Your task to perform on an android device: move an email to a new category in the gmail app Image 0: 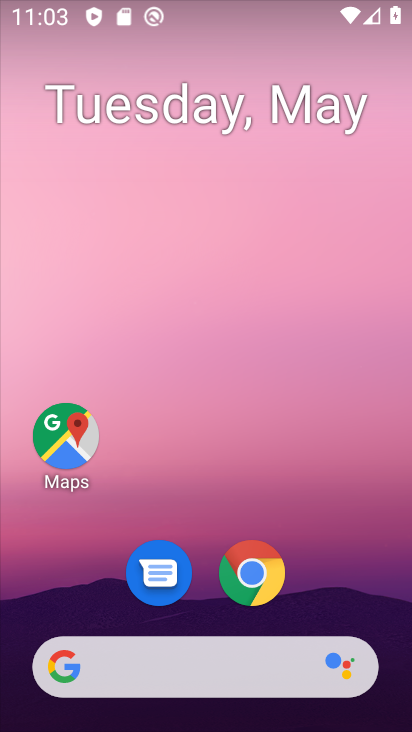
Step 0: drag from (290, 517) to (309, 79)
Your task to perform on an android device: move an email to a new category in the gmail app Image 1: 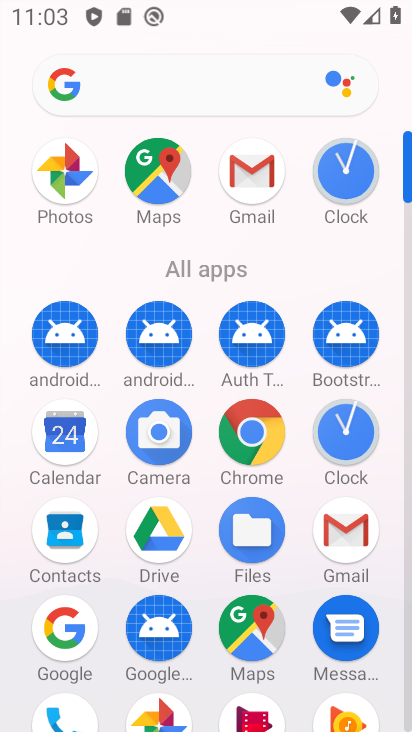
Step 1: drag from (298, 578) to (317, 193)
Your task to perform on an android device: move an email to a new category in the gmail app Image 2: 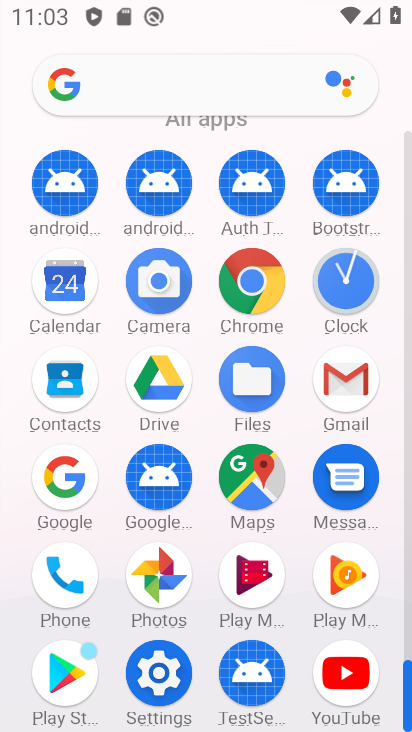
Step 2: click (299, 117)
Your task to perform on an android device: move an email to a new category in the gmail app Image 3: 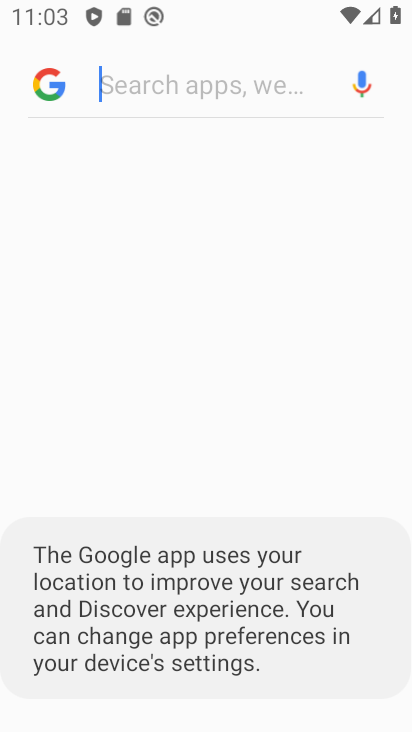
Step 3: click (364, 365)
Your task to perform on an android device: move an email to a new category in the gmail app Image 4: 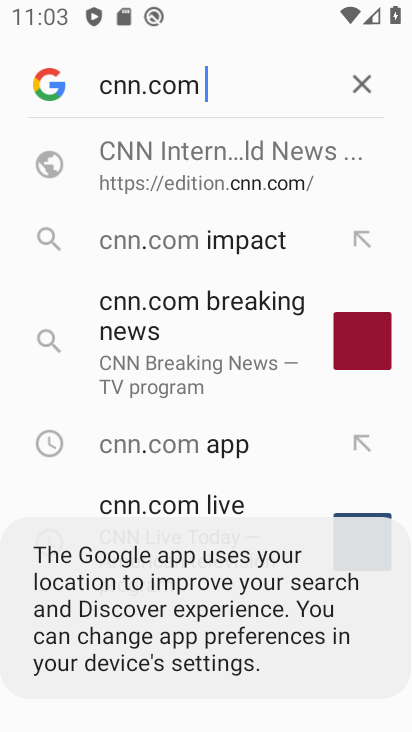
Step 4: press home button
Your task to perform on an android device: move an email to a new category in the gmail app Image 5: 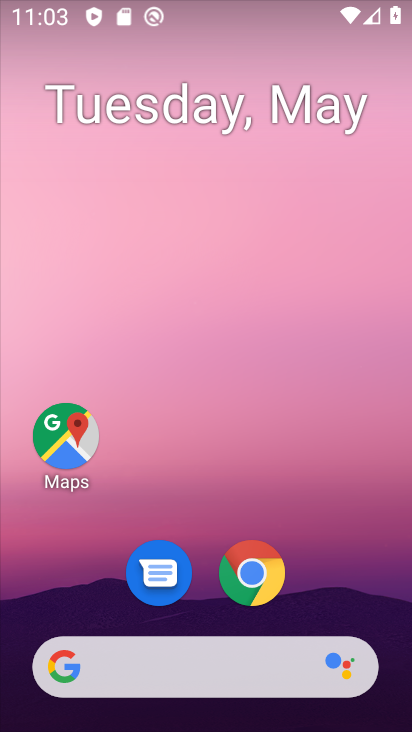
Step 5: drag from (317, 490) to (316, 208)
Your task to perform on an android device: move an email to a new category in the gmail app Image 6: 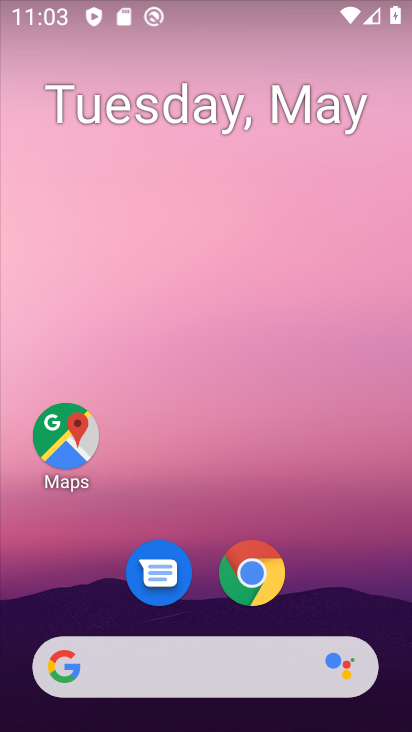
Step 6: drag from (319, 455) to (304, 277)
Your task to perform on an android device: move an email to a new category in the gmail app Image 7: 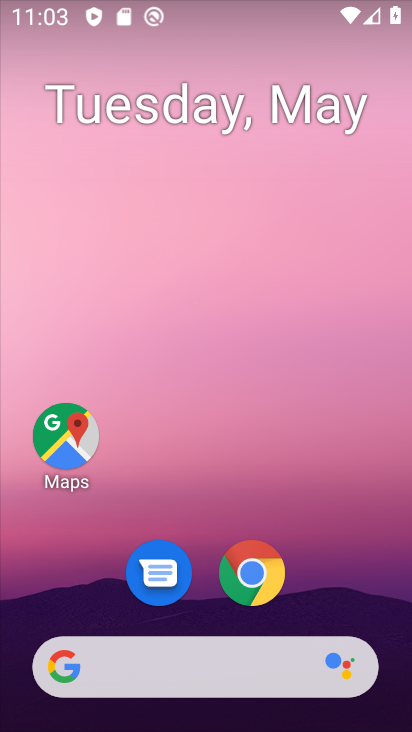
Step 7: drag from (293, 594) to (266, 167)
Your task to perform on an android device: move an email to a new category in the gmail app Image 8: 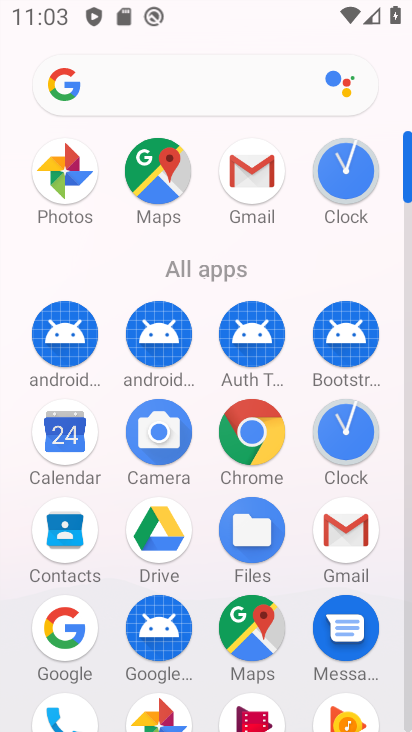
Step 8: click (351, 530)
Your task to perform on an android device: move an email to a new category in the gmail app Image 9: 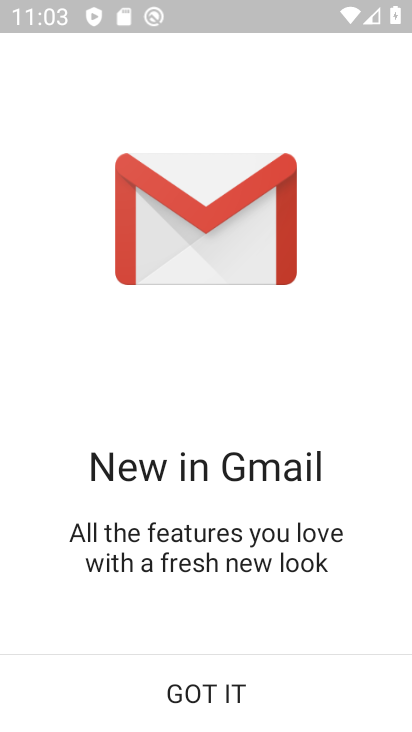
Step 9: click (202, 684)
Your task to perform on an android device: move an email to a new category in the gmail app Image 10: 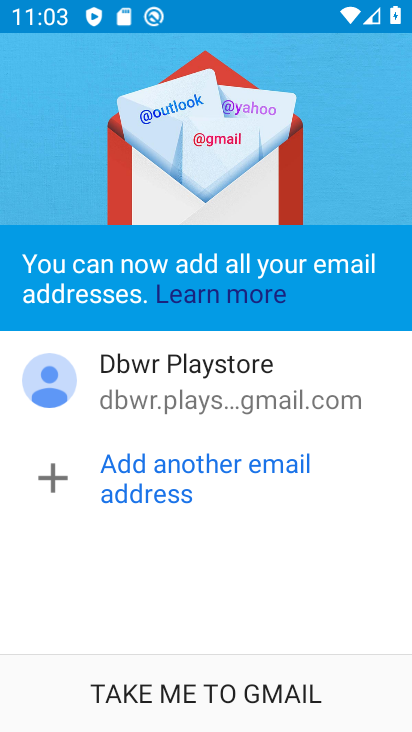
Step 10: click (202, 687)
Your task to perform on an android device: move an email to a new category in the gmail app Image 11: 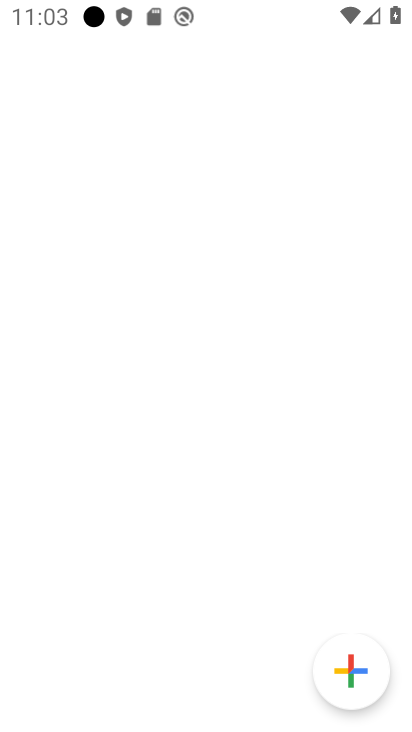
Step 11: click (202, 687)
Your task to perform on an android device: move an email to a new category in the gmail app Image 12: 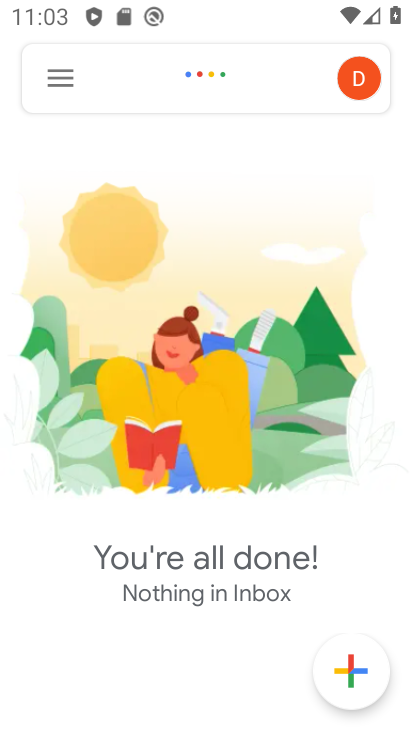
Step 12: click (50, 74)
Your task to perform on an android device: move an email to a new category in the gmail app Image 13: 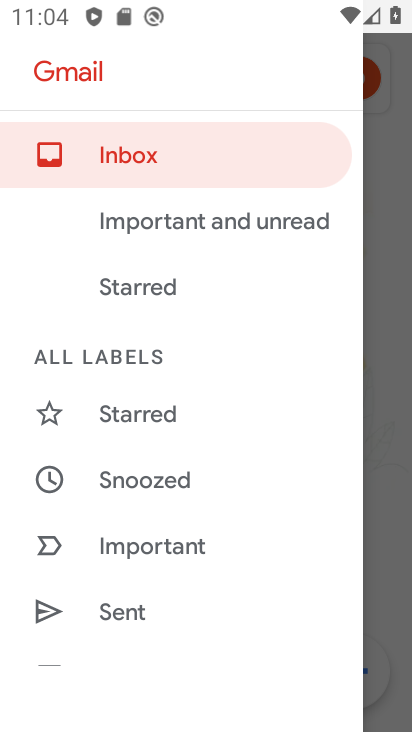
Step 13: drag from (228, 400) to (222, 98)
Your task to perform on an android device: move an email to a new category in the gmail app Image 14: 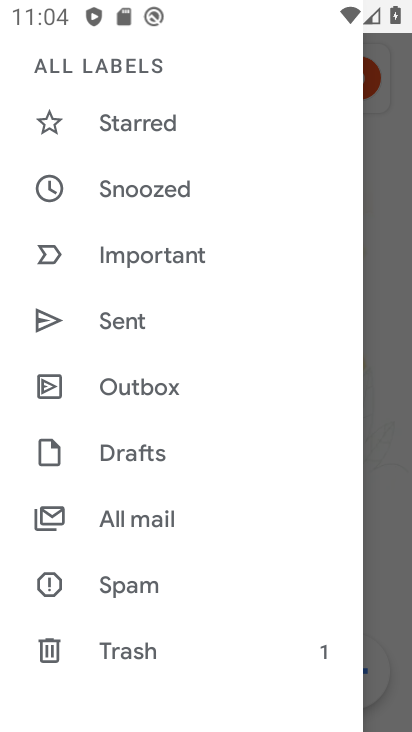
Step 14: drag from (187, 527) to (209, 287)
Your task to perform on an android device: move an email to a new category in the gmail app Image 15: 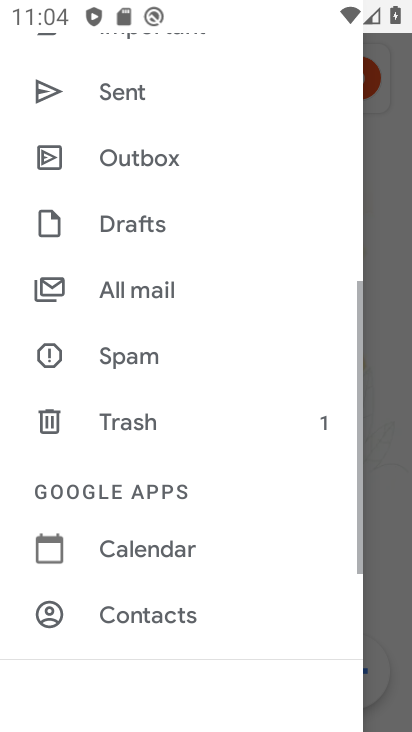
Step 15: click (220, 245)
Your task to perform on an android device: move an email to a new category in the gmail app Image 16: 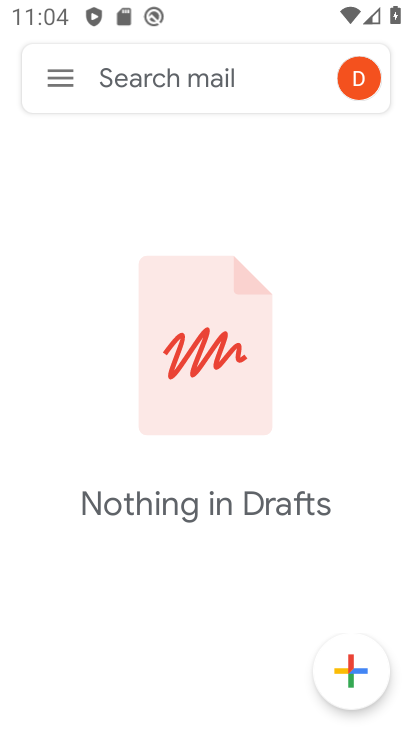
Step 16: click (57, 64)
Your task to perform on an android device: move an email to a new category in the gmail app Image 17: 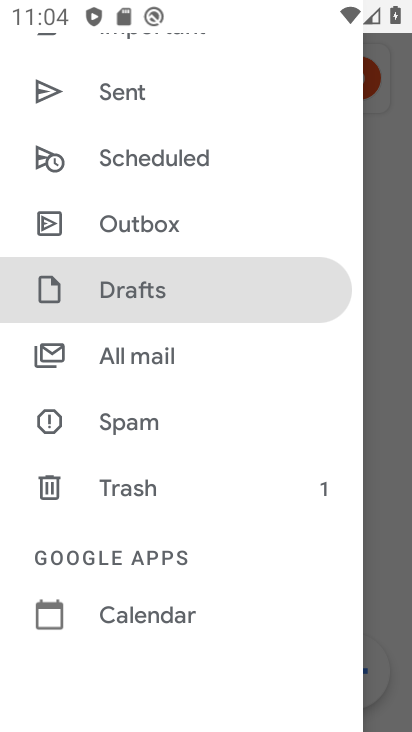
Step 17: click (184, 349)
Your task to perform on an android device: move an email to a new category in the gmail app Image 18: 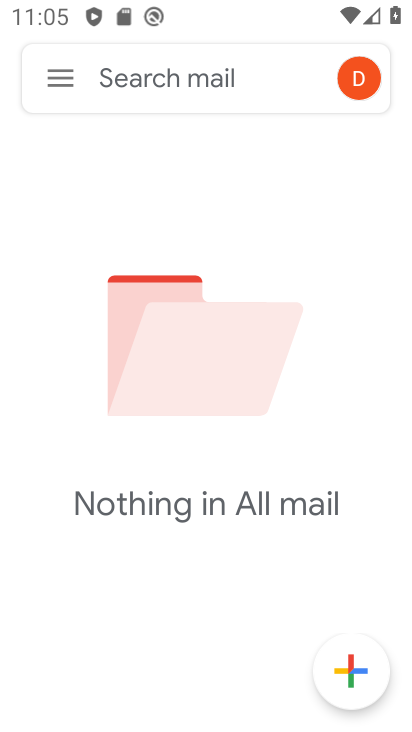
Step 18: task complete